Your task to perform on an android device: open wifi settings Image 0: 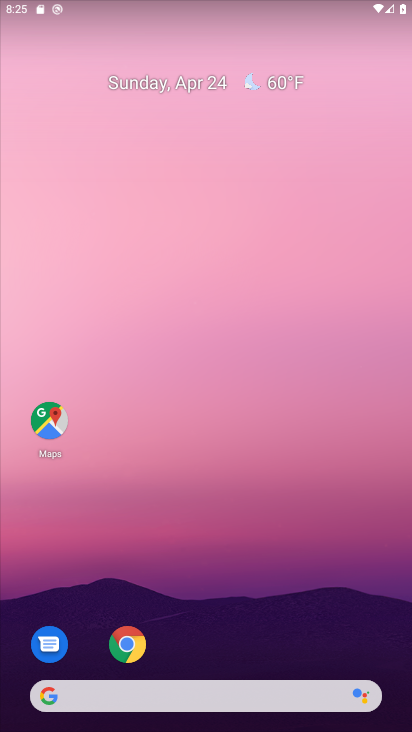
Step 0: drag from (204, 585) to (254, 199)
Your task to perform on an android device: open wifi settings Image 1: 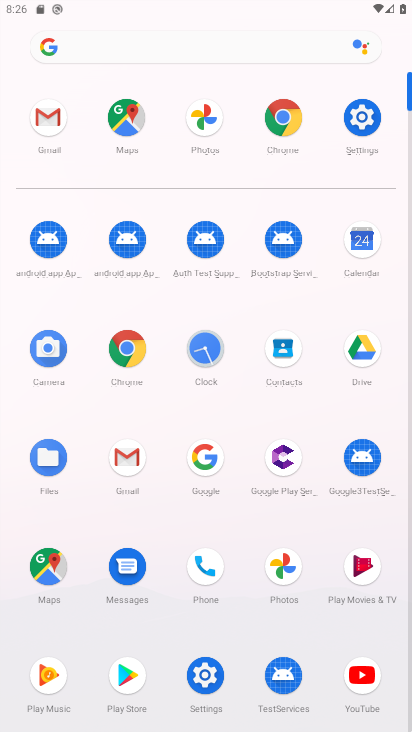
Step 1: click (362, 114)
Your task to perform on an android device: open wifi settings Image 2: 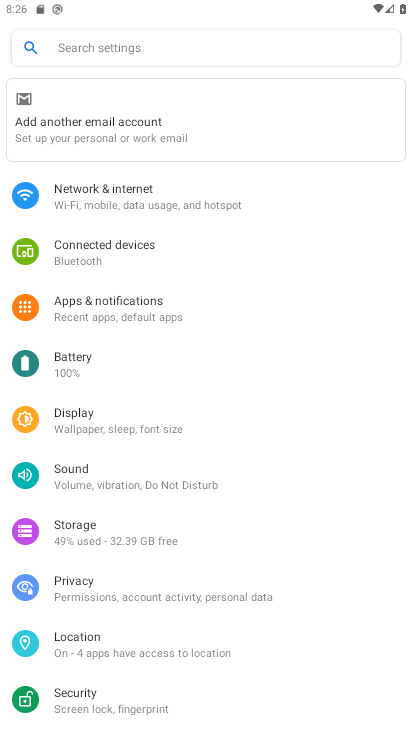
Step 2: click (179, 185)
Your task to perform on an android device: open wifi settings Image 3: 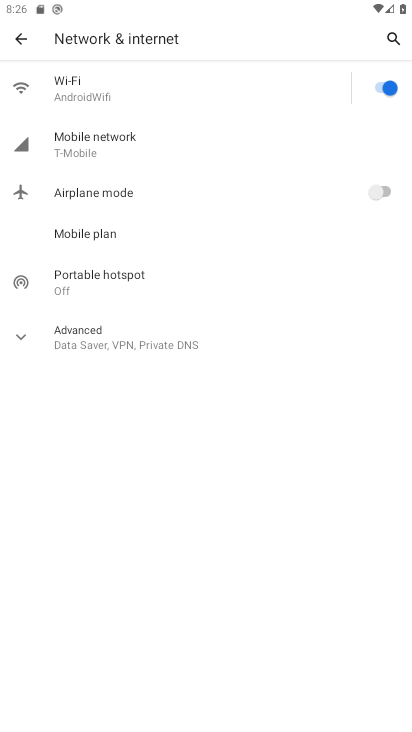
Step 3: click (102, 84)
Your task to perform on an android device: open wifi settings Image 4: 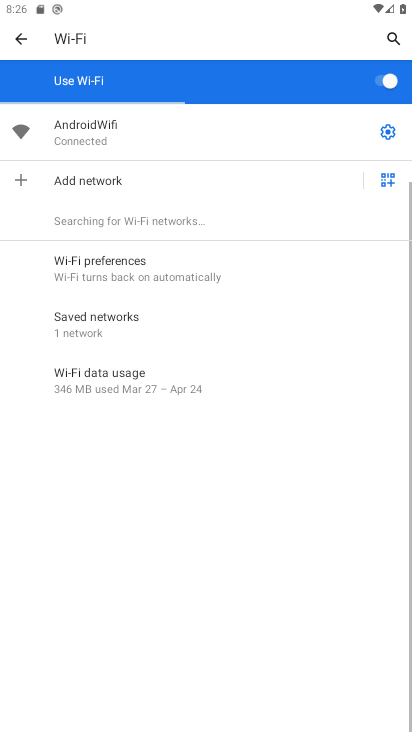
Step 4: task complete